Your task to perform on an android device: See recent photos Image 0: 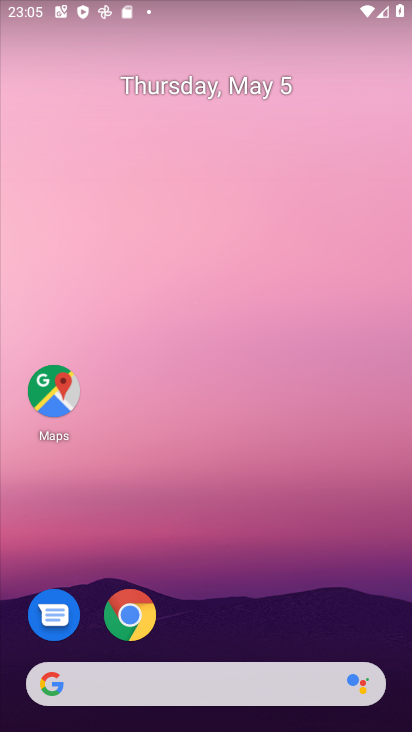
Step 0: drag from (224, 613) to (260, 87)
Your task to perform on an android device: See recent photos Image 1: 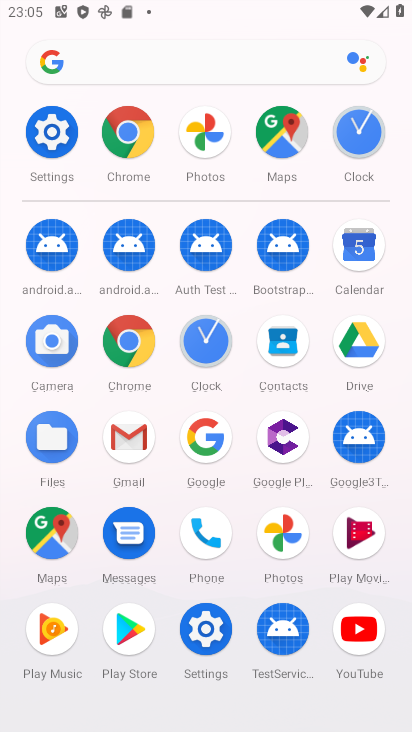
Step 1: click (287, 537)
Your task to perform on an android device: See recent photos Image 2: 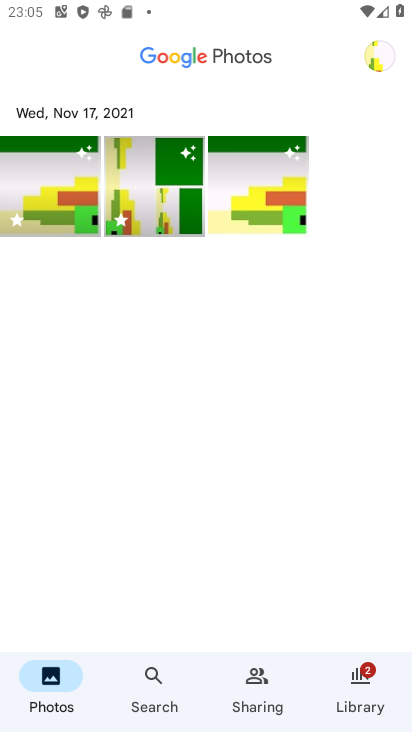
Step 2: task complete